Your task to perform on an android device: What's the weather? Image 0: 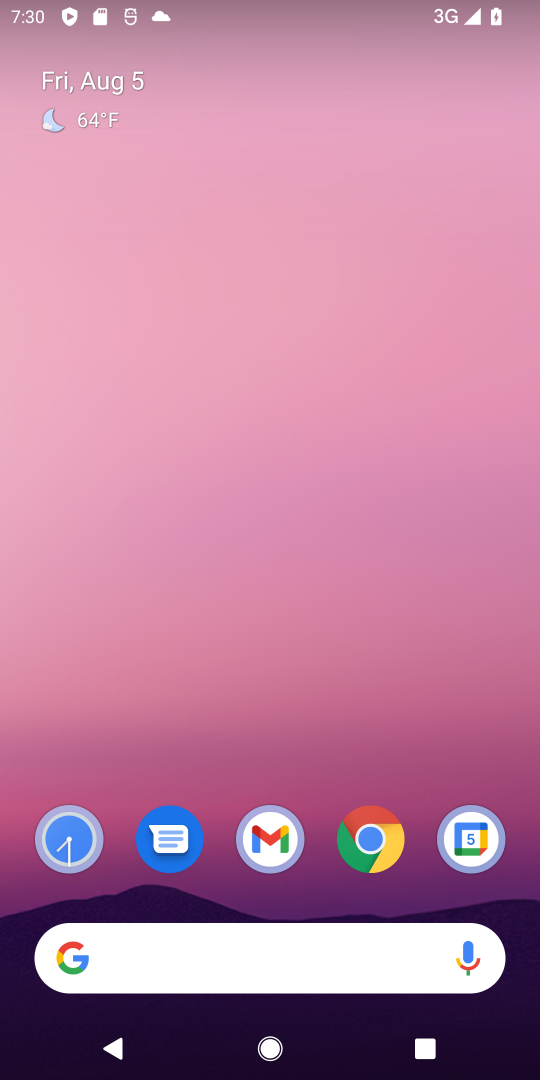
Step 0: drag from (297, 808) to (297, 52)
Your task to perform on an android device: What's the weather? Image 1: 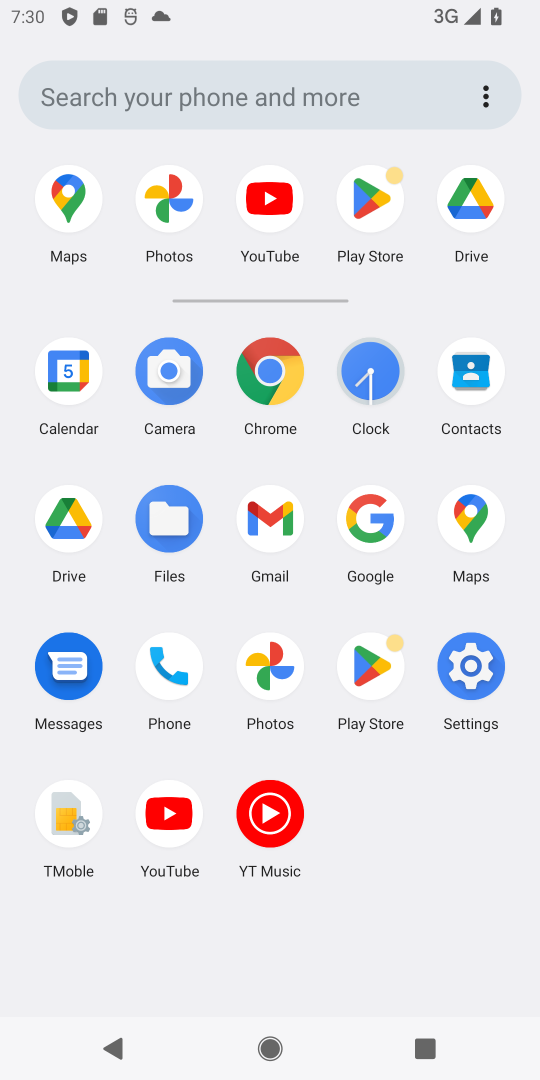
Step 1: click (378, 523)
Your task to perform on an android device: What's the weather? Image 2: 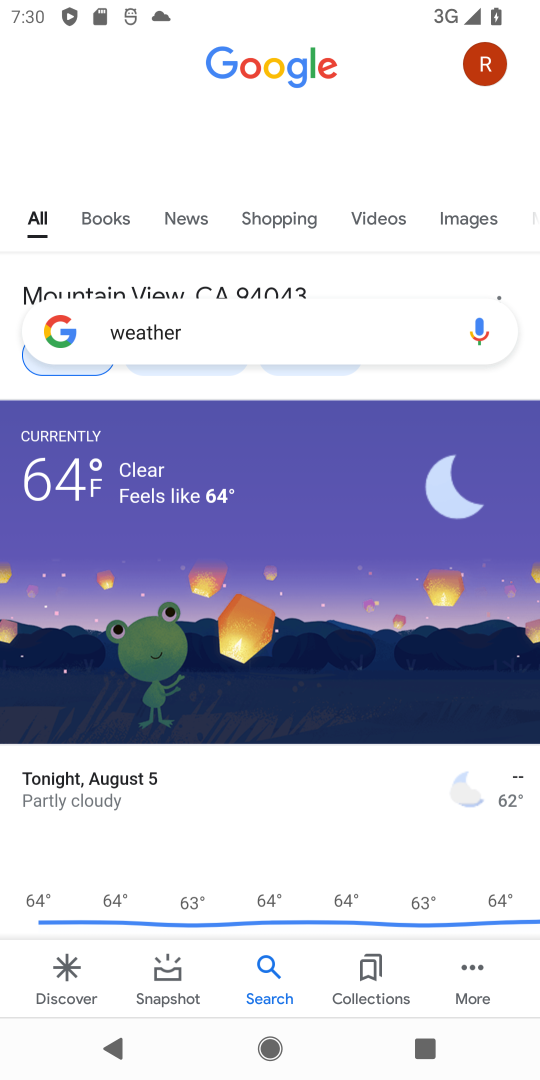
Step 2: click (62, 369)
Your task to perform on an android device: What's the weather? Image 3: 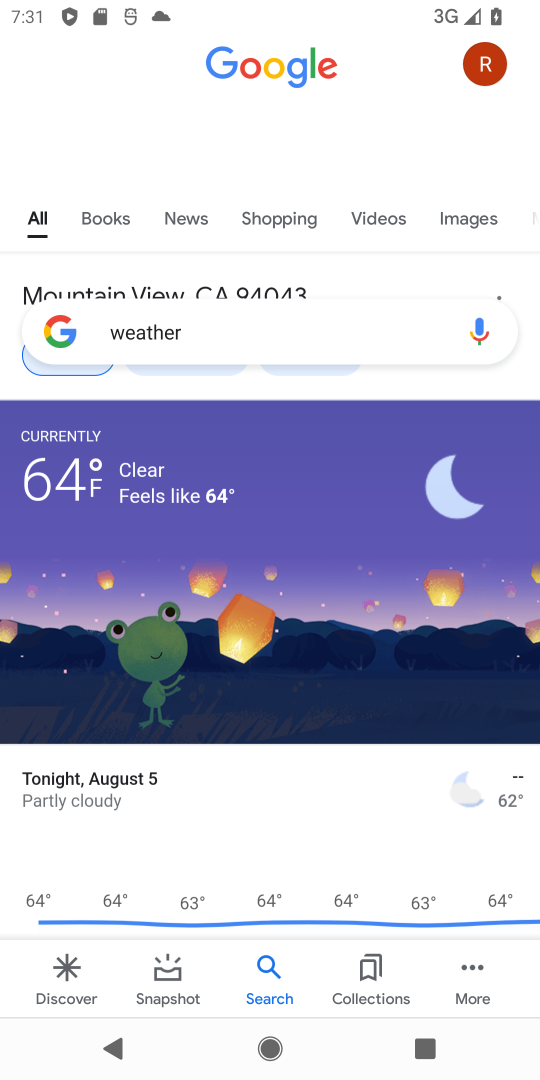
Step 3: drag from (408, 386) to (370, 930)
Your task to perform on an android device: What's the weather? Image 4: 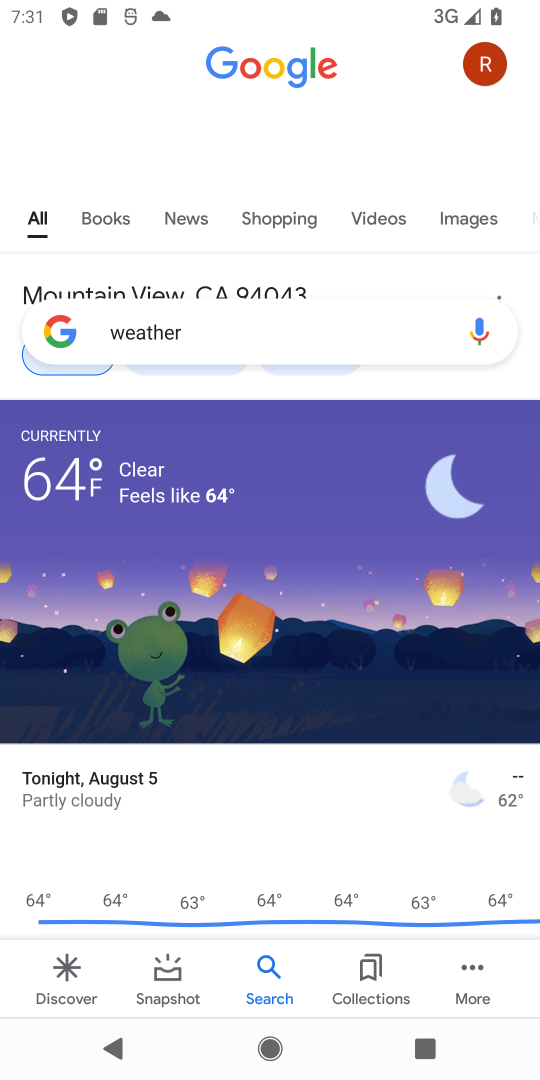
Step 4: click (64, 371)
Your task to perform on an android device: What's the weather? Image 5: 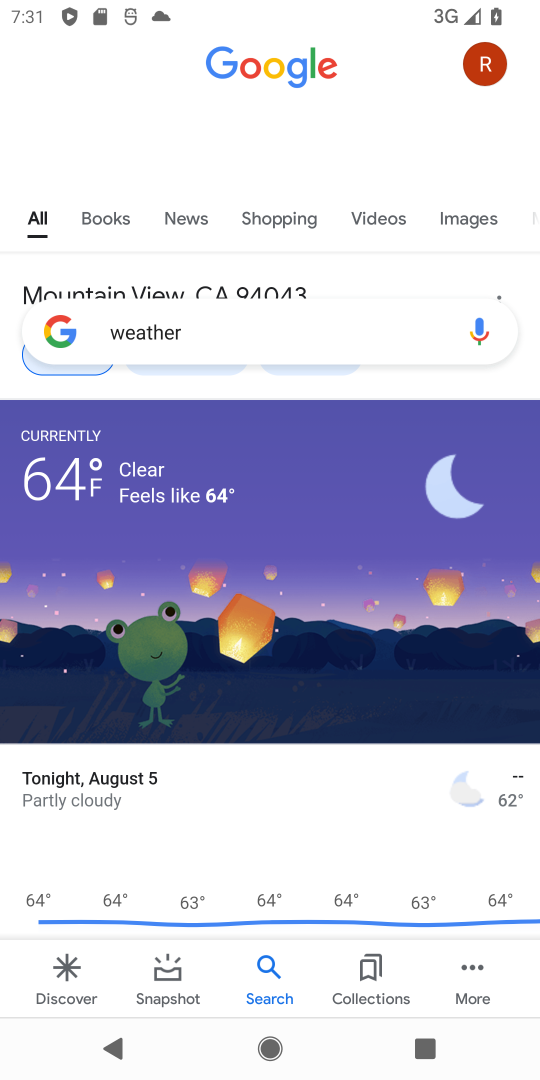
Step 5: task complete